Your task to perform on an android device: check data usage Image 0: 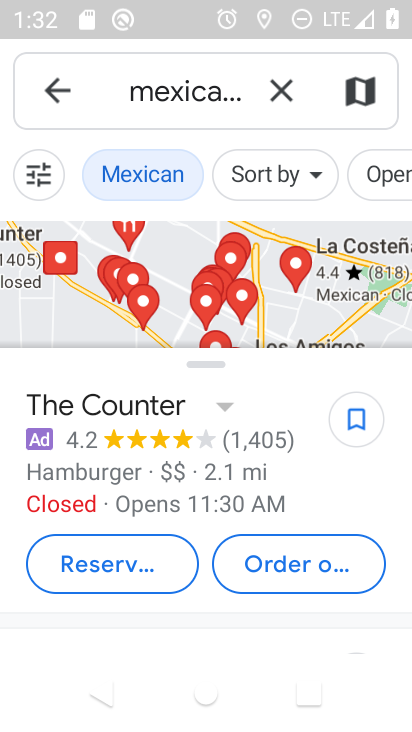
Step 0: press home button
Your task to perform on an android device: check data usage Image 1: 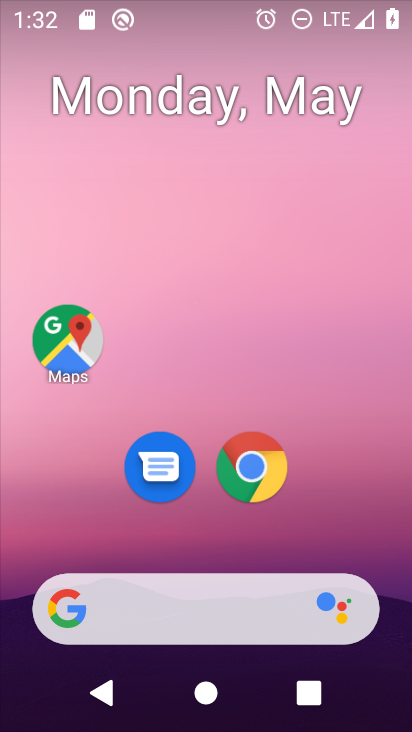
Step 1: drag from (381, 582) to (362, 11)
Your task to perform on an android device: check data usage Image 2: 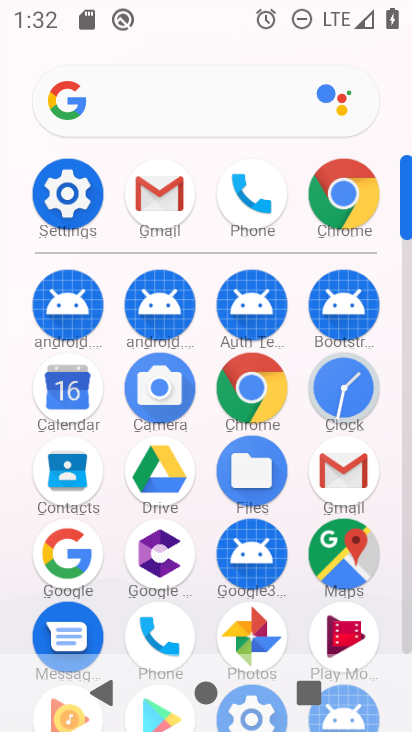
Step 2: click (62, 193)
Your task to perform on an android device: check data usage Image 3: 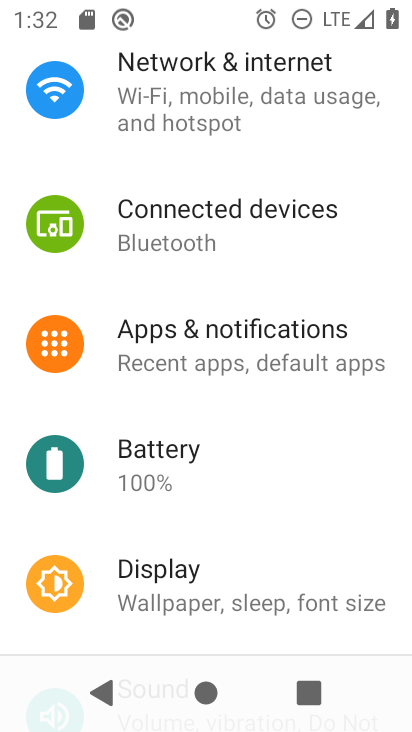
Step 3: click (250, 99)
Your task to perform on an android device: check data usage Image 4: 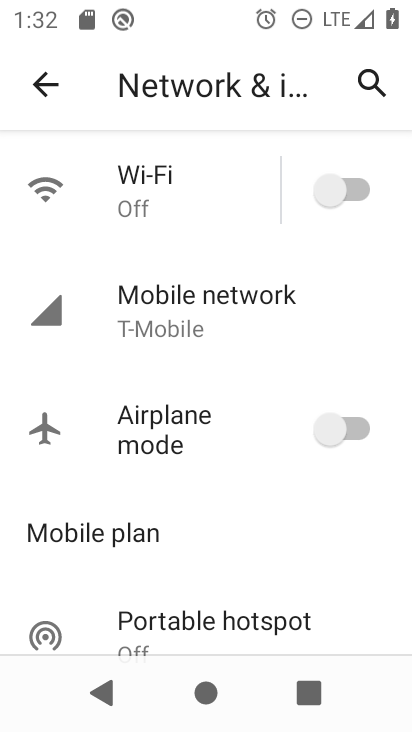
Step 4: click (195, 330)
Your task to perform on an android device: check data usage Image 5: 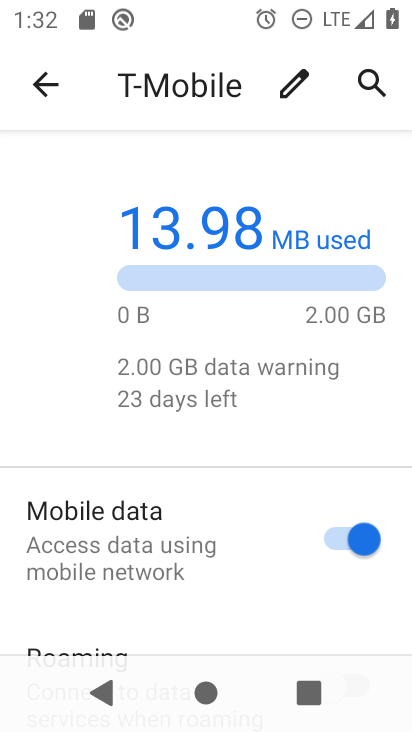
Step 5: drag from (177, 581) to (165, 220)
Your task to perform on an android device: check data usage Image 6: 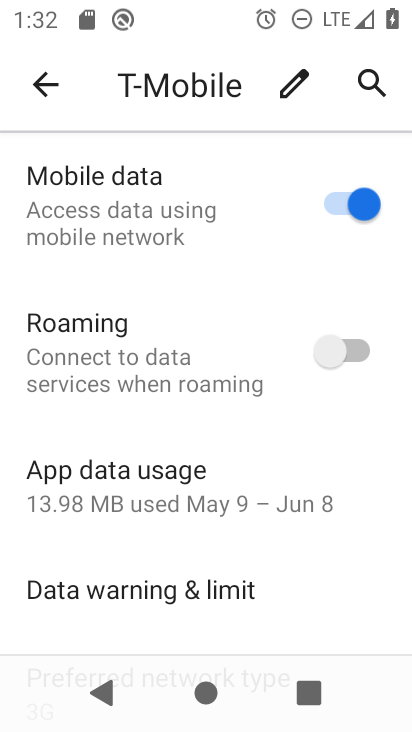
Step 6: click (151, 496)
Your task to perform on an android device: check data usage Image 7: 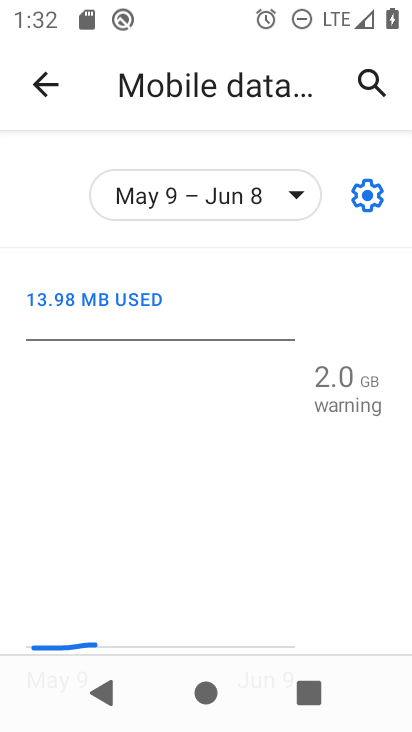
Step 7: task complete